Your task to perform on an android device: Go to accessibility settings Image 0: 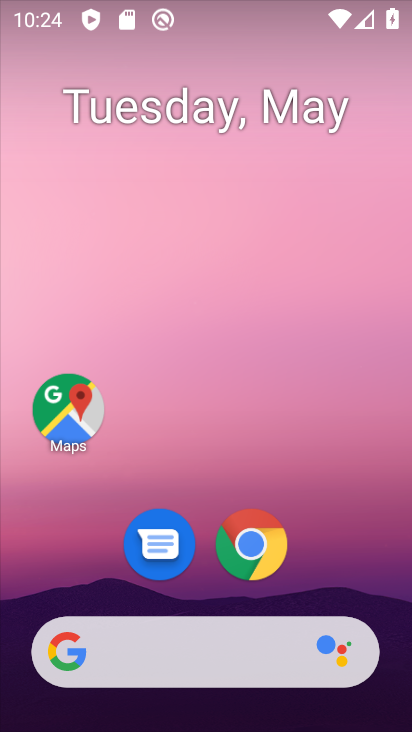
Step 0: drag from (363, 596) to (282, 13)
Your task to perform on an android device: Go to accessibility settings Image 1: 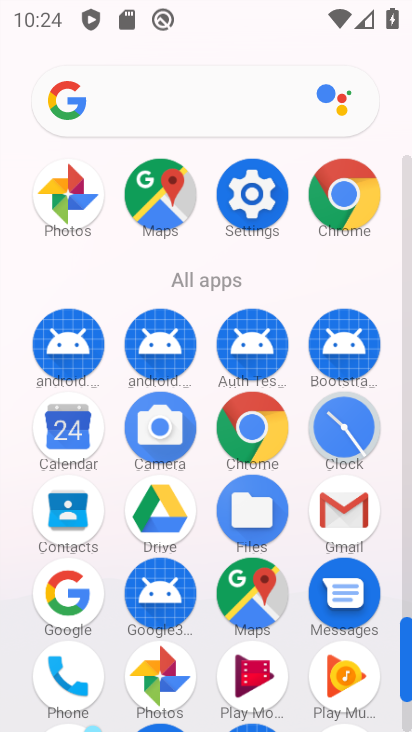
Step 1: click (250, 178)
Your task to perform on an android device: Go to accessibility settings Image 2: 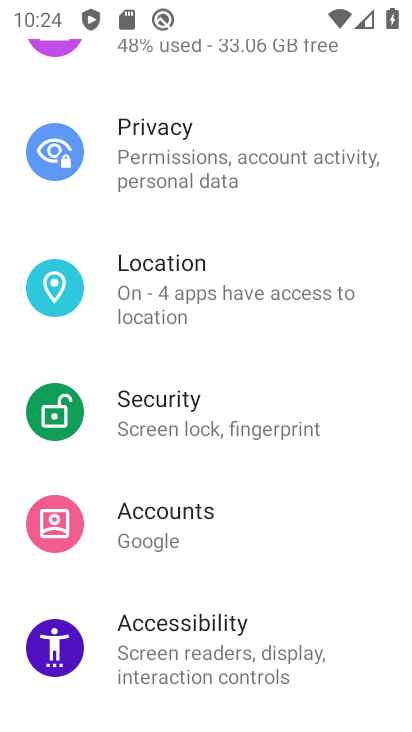
Step 2: click (271, 653)
Your task to perform on an android device: Go to accessibility settings Image 3: 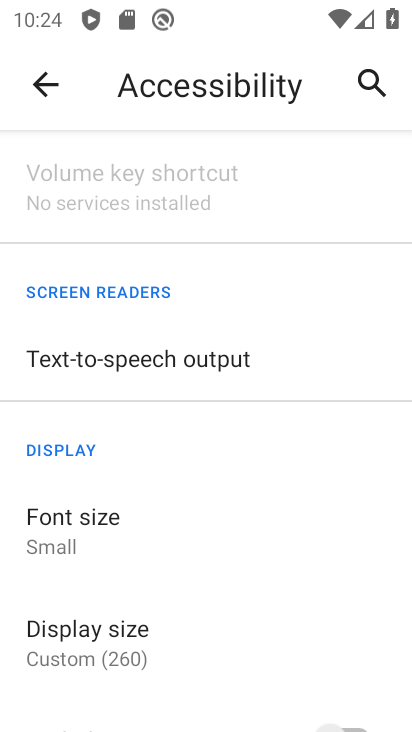
Step 3: task complete